Your task to perform on an android device: change text size in settings app Image 0: 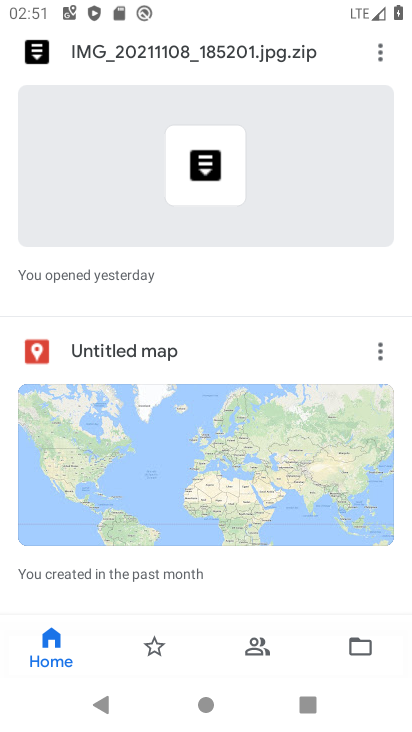
Step 0: drag from (199, 533) to (199, 272)
Your task to perform on an android device: change text size in settings app Image 1: 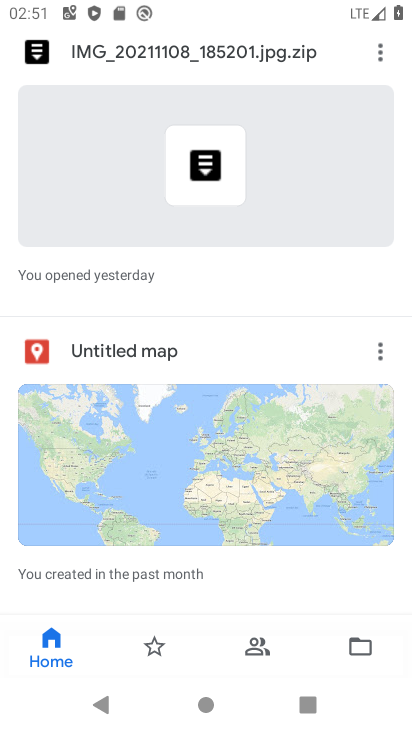
Step 1: drag from (186, 564) to (252, 383)
Your task to perform on an android device: change text size in settings app Image 2: 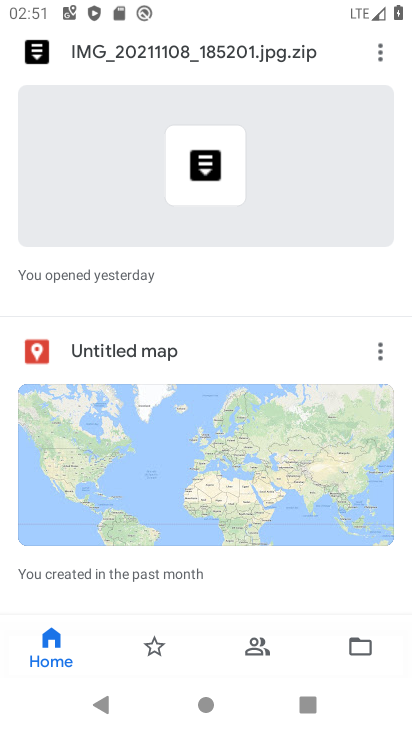
Step 2: press home button
Your task to perform on an android device: change text size in settings app Image 3: 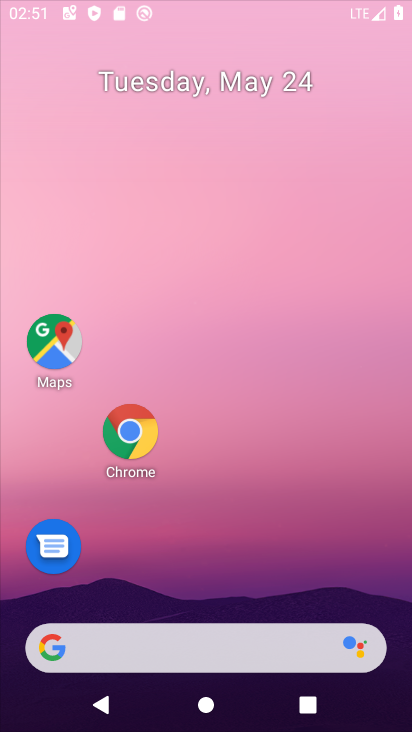
Step 3: drag from (184, 581) to (280, 74)
Your task to perform on an android device: change text size in settings app Image 4: 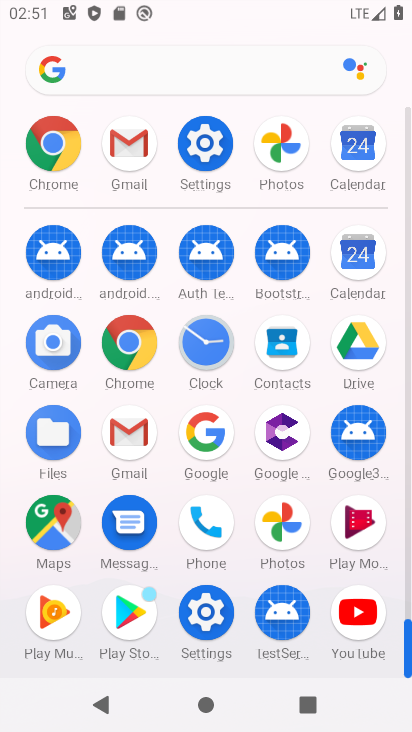
Step 4: click (200, 152)
Your task to perform on an android device: change text size in settings app Image 5: 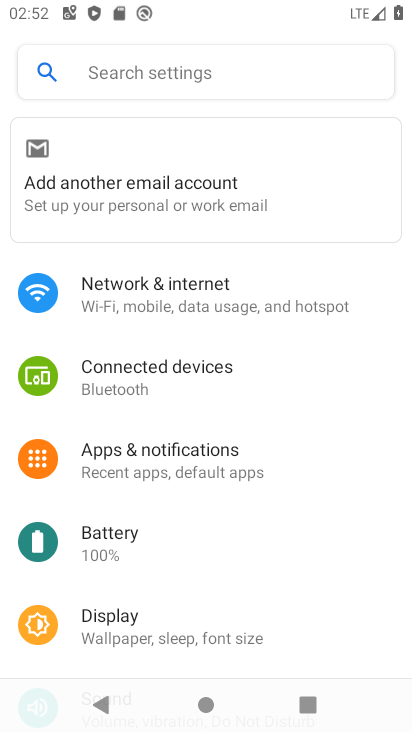
Step 5: drag from (163, 535) to (226, 173)
Your task to perform on an android device: change text size in settings app Image 6: 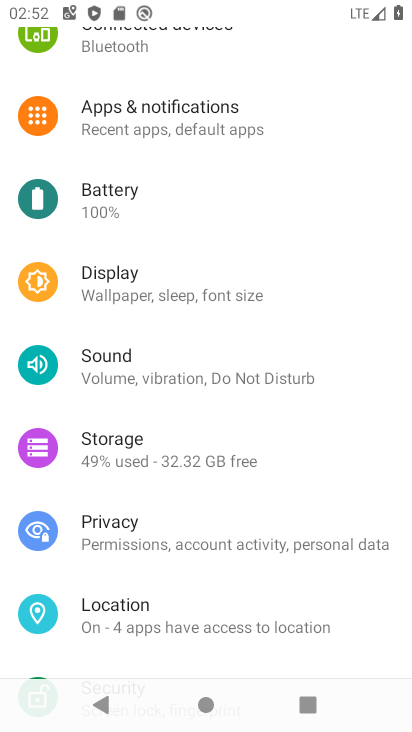
Step 6: click (174, 290)
Your task to perform on an android device: change text size in settings app Image 7: 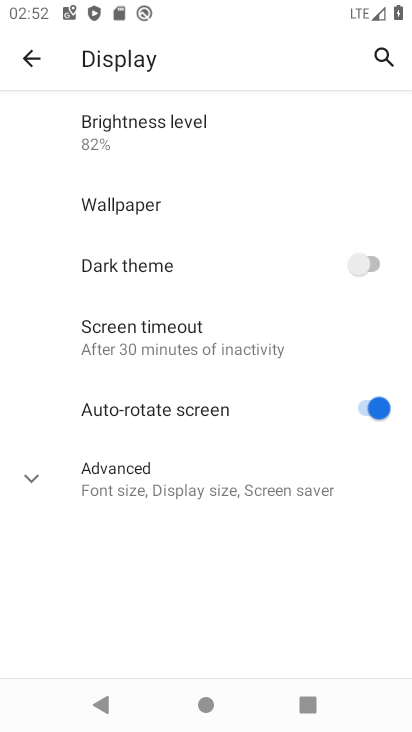
Step 7: click (149, 490)
Your task to perform on an android device: change text size in settings app Image 8: 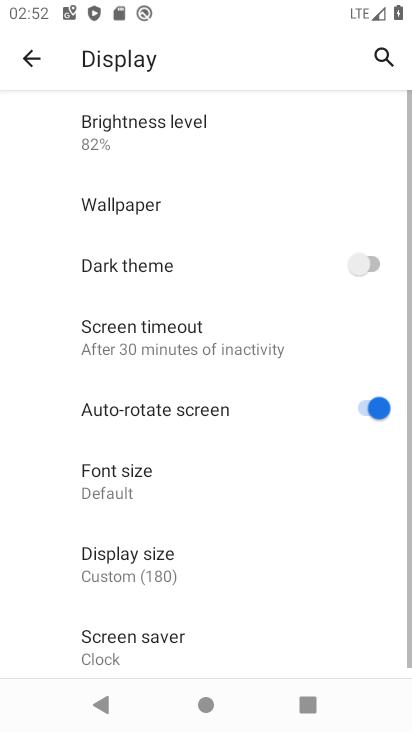
Step 8: click (161, 479)
Your task to perform on an android device: change text size in settings app Image 9: 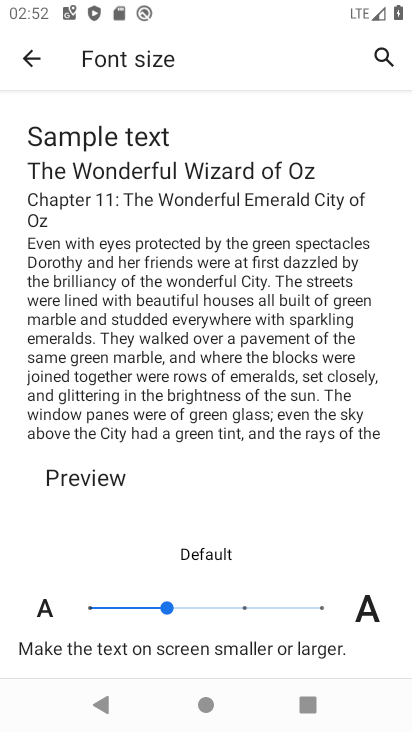
Step 9: task complete